Your task to perform on an android device: Open Maps and search for coffee Image 0: 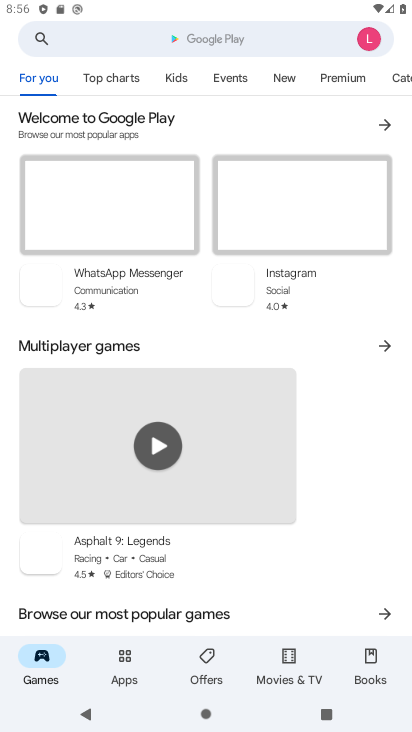
Step 0: press home button
Your task to perform on an android device: Open Maps and search for coffee Image 1: 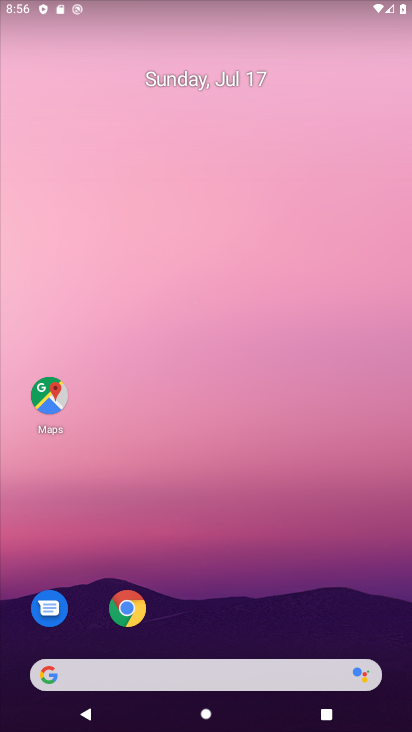
Step 1: click (50, 395)
Your task to perform on an android device: Open Maps and search for coffee Image 2: 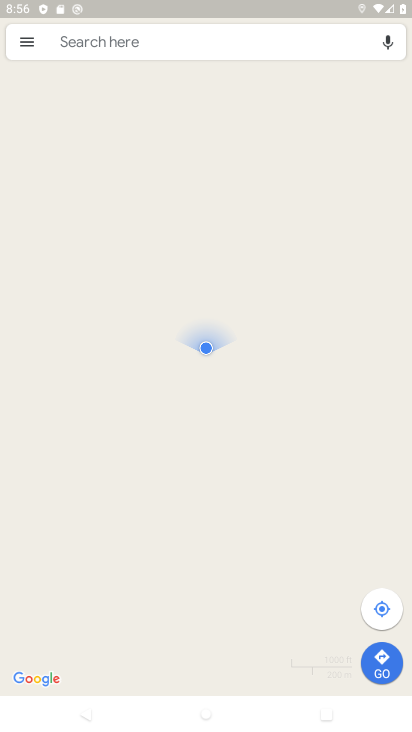
Step 2: click (219, 52)
Your task to perform on an android device: Open Maps and search for coffee Image 3: 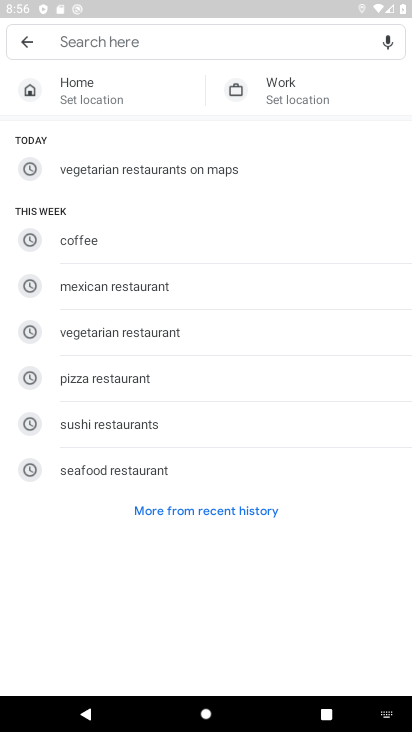
Step 3: type "coffee"
Your task to perform on an android device: Open Maps and search for coffee Image 4: 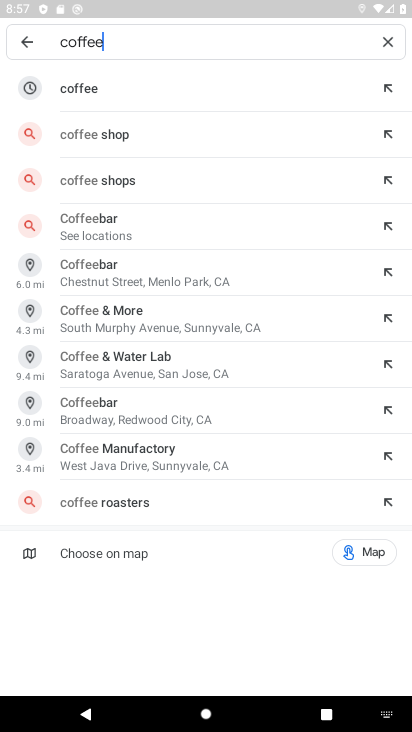
Step 4: click (65, 90)
Your task to perform on an android device: Open Maps and search for coffee Image 5: 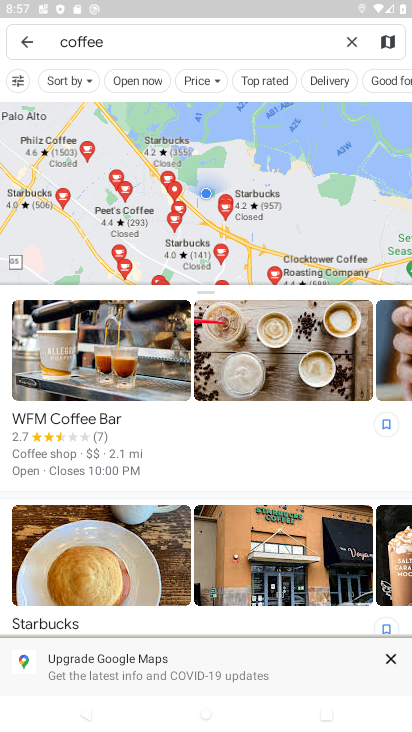
Step 5: task complete